Your task to perform on an android device: turn off picture-in-picture Image 0: 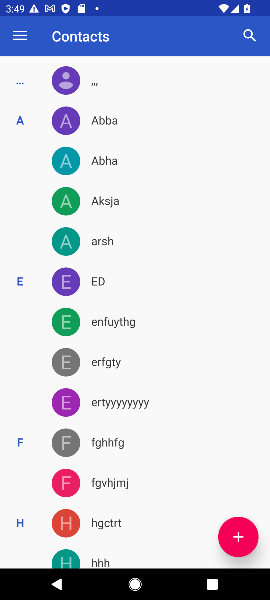
Step 0: press home button
Your task to perform on an android device: turn off picture-in-picture Image 1: 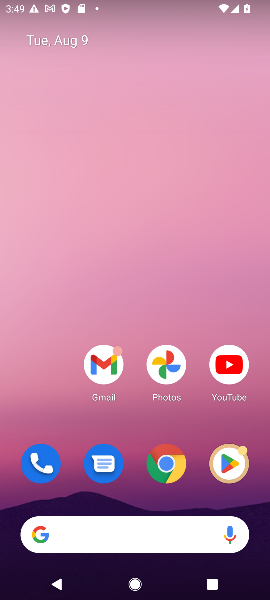
Step 1: drag from (153, 466) to (123, 466)
Your task to perform on an android device: turn off picture-in-picture Image 2: 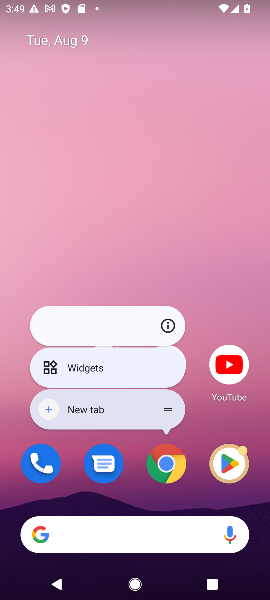
Step 2: click (170, 457)
Your task to perform on an android device: turn off picture-in-picture Image 3: 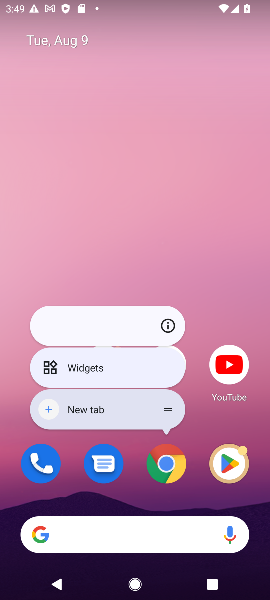
Step 3: click (162, 324)
Your task to perform on an android device: turn off picture-in-picture Image 4: 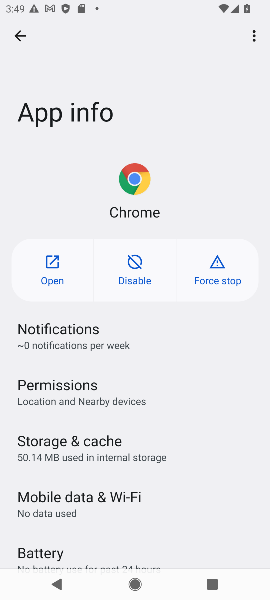
Step 4: drag from (76, 528) to (11, 64)
Your task to perform on an android device: turn off picture-in-picture Image 5: 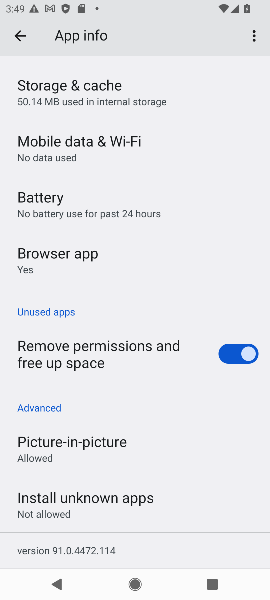
Step 5: click (30, 454)
Your task to perform on an android device: turn off picture-in-picture Image 6: 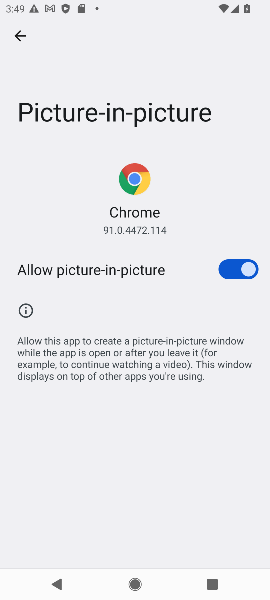
Step 6: click (223, 268)
Your task to perform on an android device: turn off picture-in-picture Image 7: 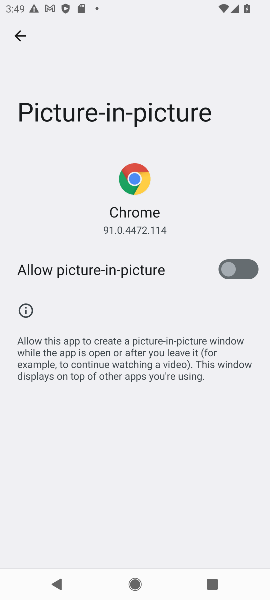
Step 7: task complete